Your task to perform on an android device: Go to calendar. Show me events next week Image 0: 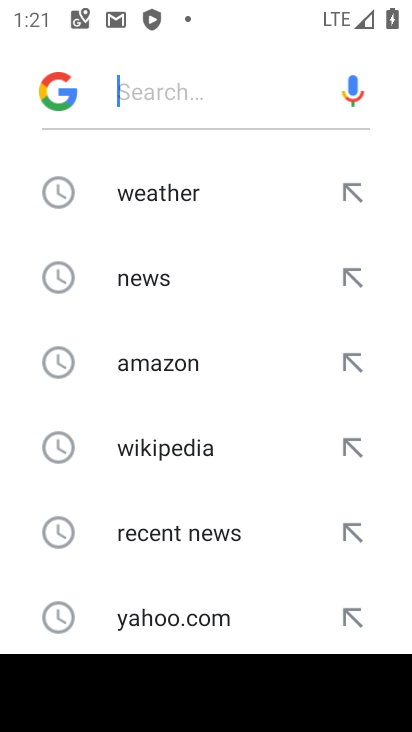
Step 0: press home button
Your task to perform on an android device: Go to calendar. Show me events next week Image 1: 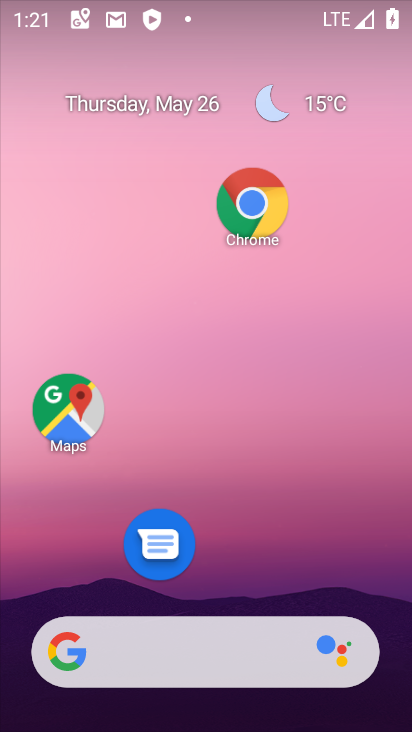
Step 1: drag from (218, 589) to (227, 145)
Your task to perform on an android device: Go to calendar. Show me events next week Image 2: 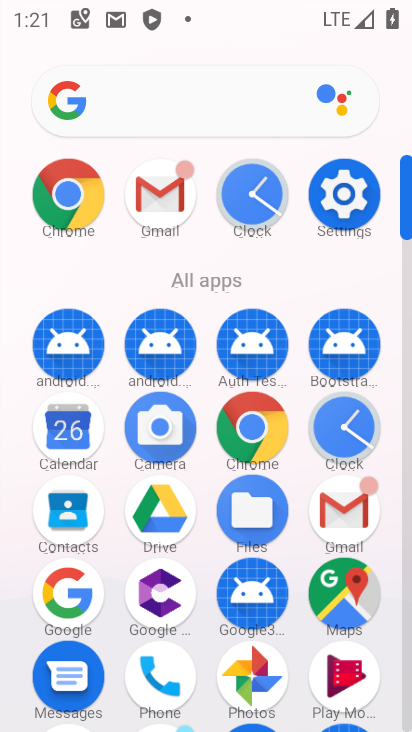
Step 2: click (47, 445)
Your task to perform on an android device: Go to calendar. Show me events next week Image 3: 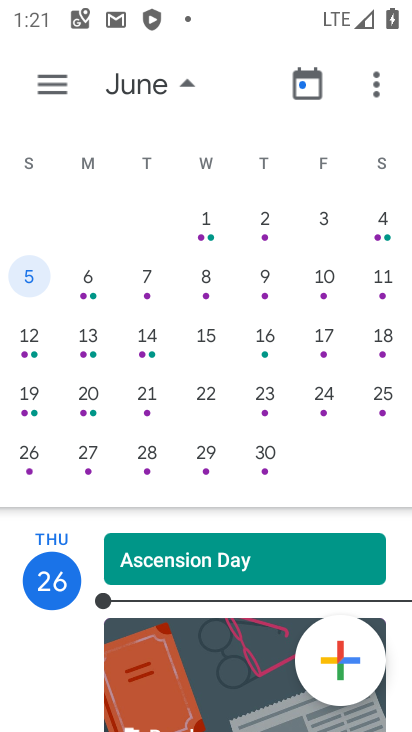
Step 3: drag from (47, 297) to (396, 350)
Your task to perform on an android device: Go to calendar. Show me events next week Image 4: 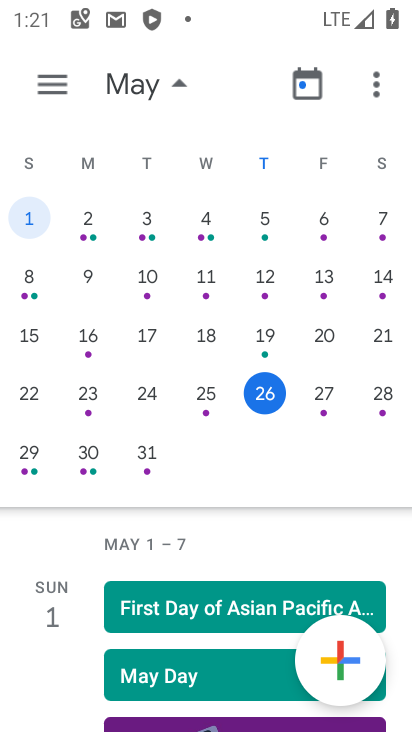
Step 4: click (28, 461)
Your task to perform on an android device: Go to calendar. Show me events next week Image 5: 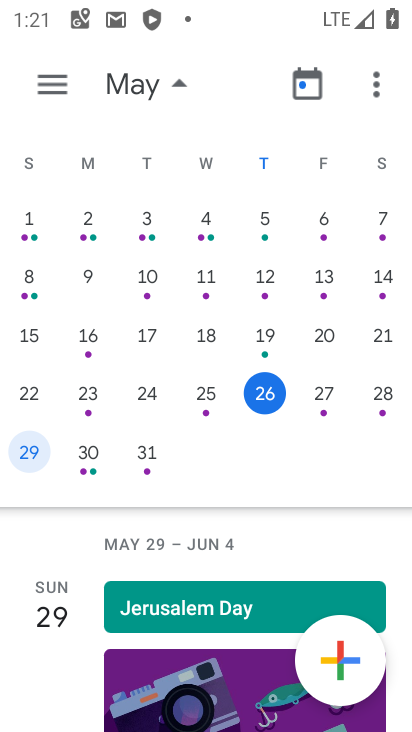
Step 5: task complete